Your task to perform on an android device: See recent photos Image 0: 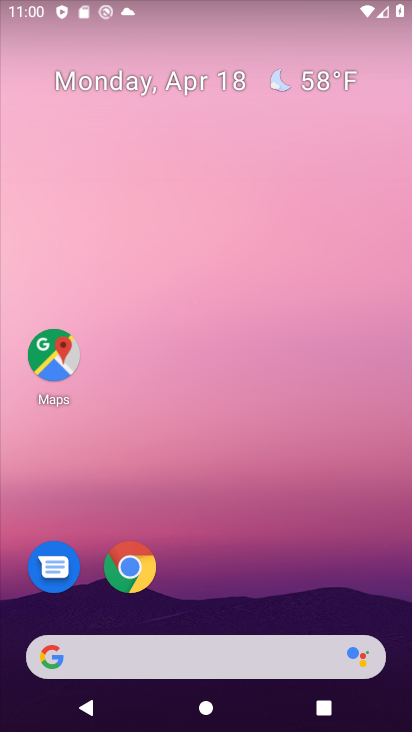
Step 0: drag from (390, 616) to (307, 157)
Your task to perform on an android device: See recent photos Image 1: 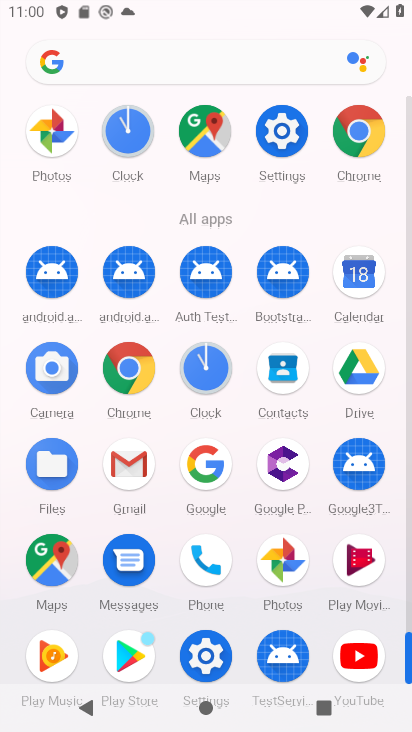
Step 1: click (282, 562)
Your task to perform on an android device: See recent photos Image 2: 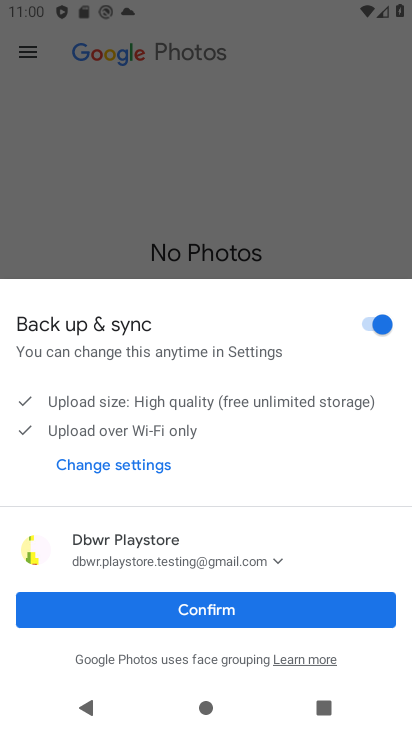
Step 2: click (191, 602)
Your task to perform on an android device: See recent photos Image 3: 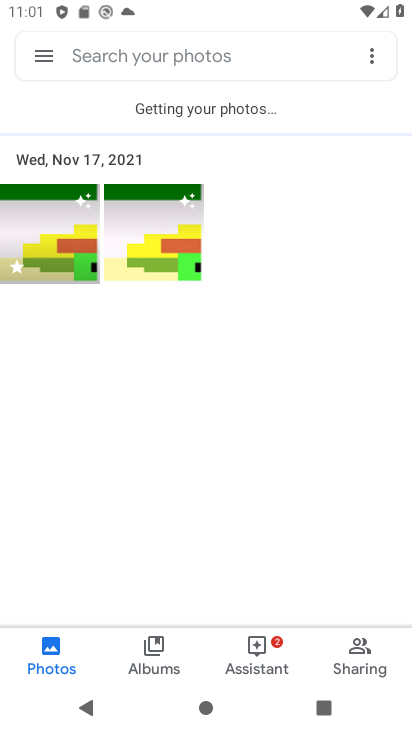
Step 3: task complete